Your task to perform on an android device: Do I have any events tomorrow? Image 0: 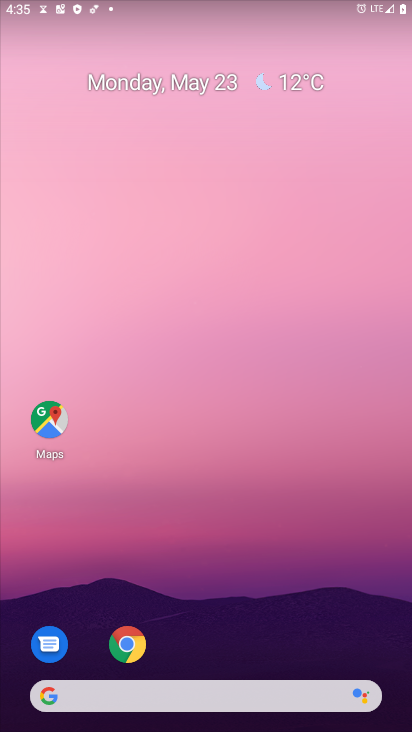
Step 0: drag from (209, 648) to (204, 292)
Your task to perform on an android device: Do I have any events tomorrow? Image 1: 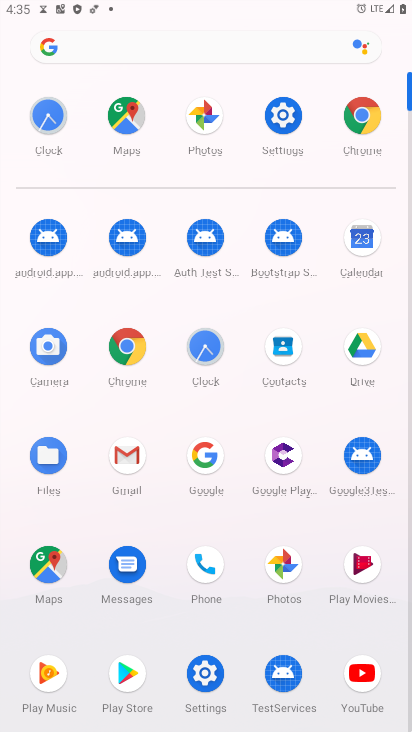
Step 1: click (358, 233)
Your task to perform on an android device: Do I have any events tomorrow? Image 2: 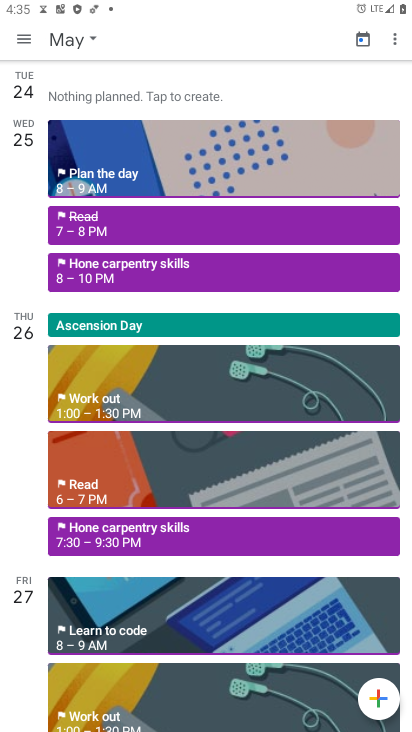
Step 2: click (84, 42)
Your task to perform on an android device: Do I have any events tomorrow? Image 3: 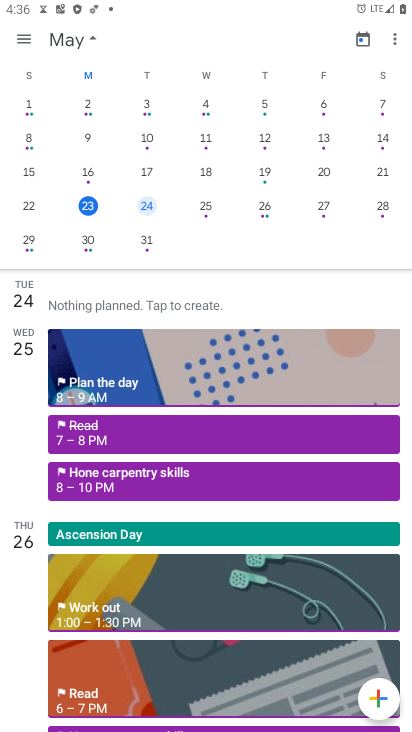
Step 3: click (141, 205)
Your task to perform on an android device: Do I have any events tomorrow? Image 4: 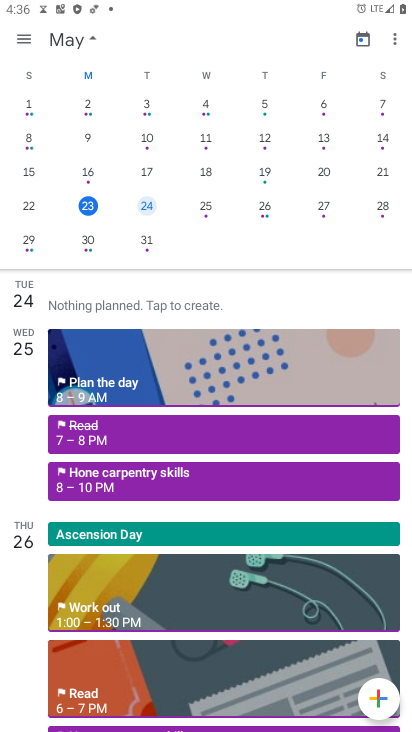
Step 4: click (15, 34)
Your task to perform on an android device: Do I have any events tomorrow? Image 5: 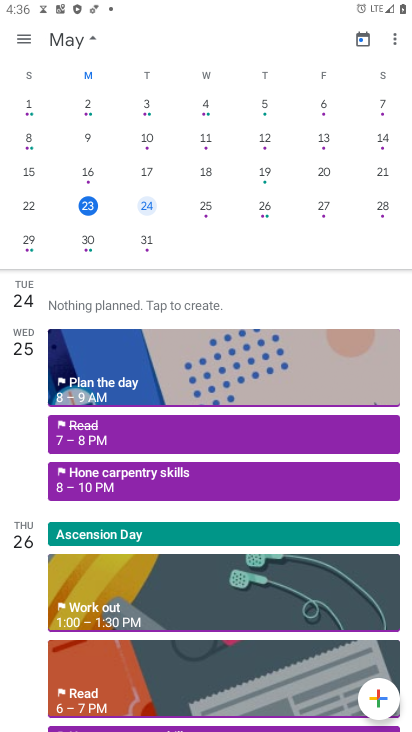
Step 5: click (27, 37)
Your task to perform on an android device: Do I have any events tomorrow? Image 6: 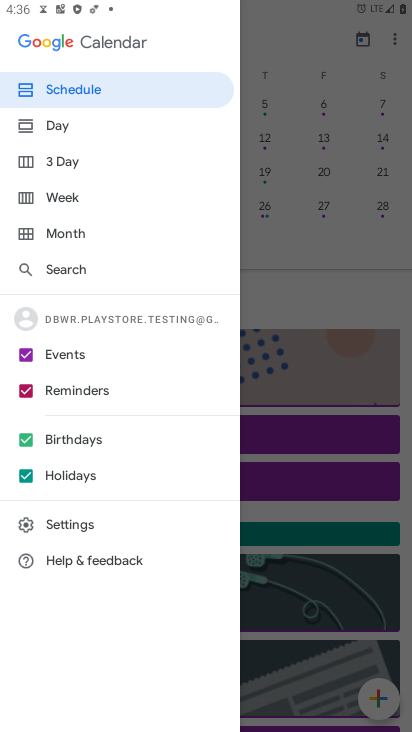
Step 6: click (22, 479)
Your task to perform on an android device: Do I have any events tomorrow? Image 7: 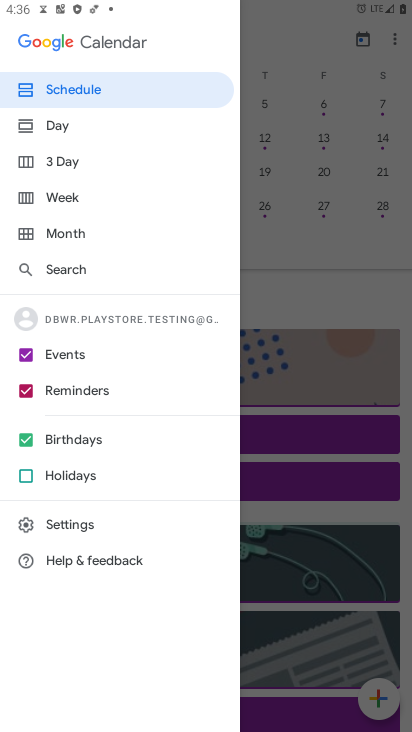
Step 7: click (25, 436)
Your task to perform on an android device: Do I have any events tomorrow? Image 8: 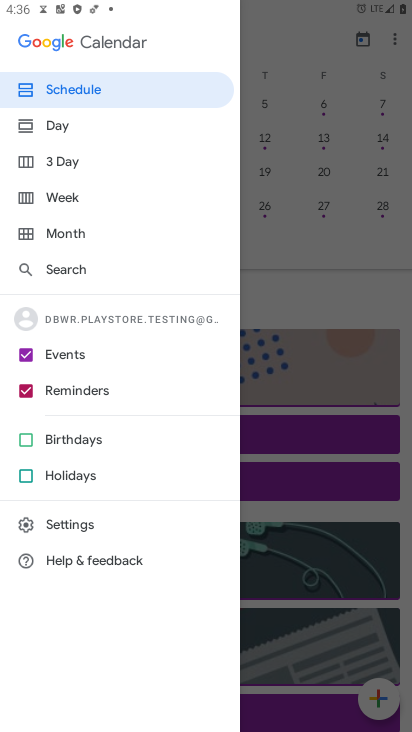
Step 8: click (23, 390)
Your task to perform on an android device: Do I have any events tomorrow? Image 9: 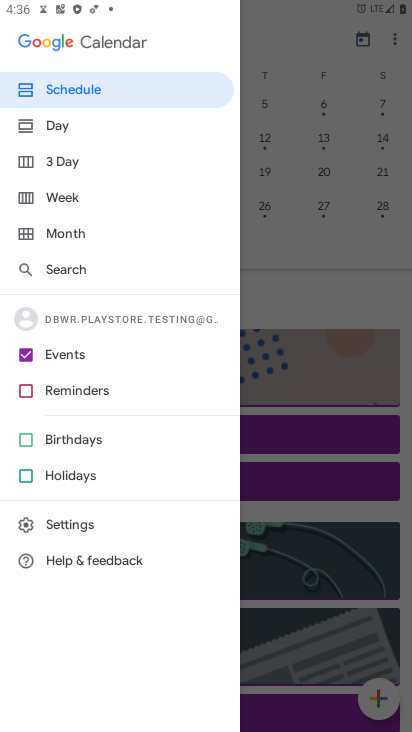
Step 9: click (58, 128)
Your task to perform on an android device: Do I have any events tomorrow? Image 10: 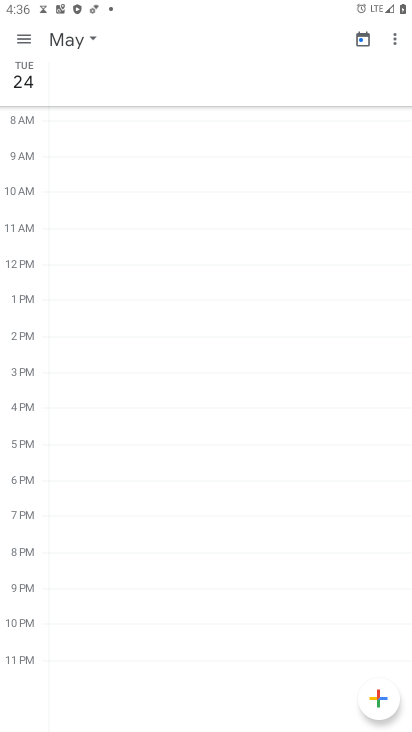
Step 10: task complete